Your task to perform on an android device: turn on wifi Image 0: 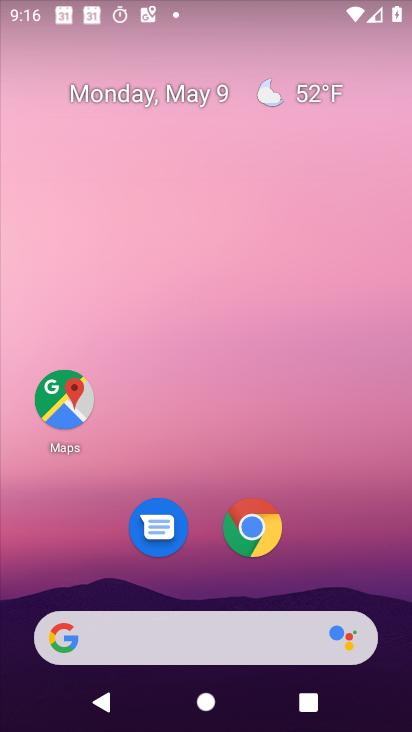
Step 0: drag from (330, 565) to (315, 206)
Your task to perform on an android device: turn on wifi Image 1: 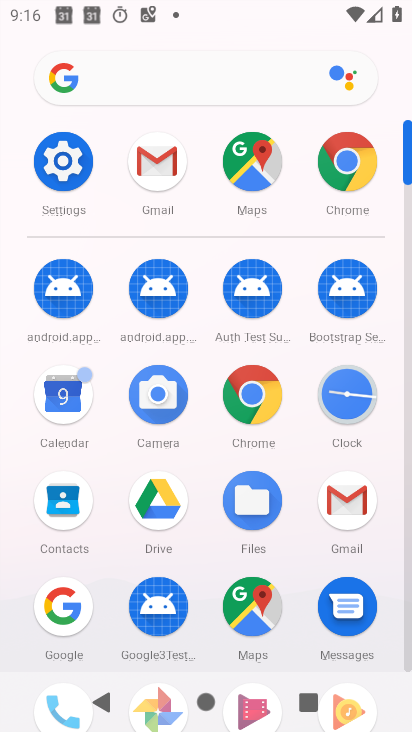
Step 1: click (44, 168)
Your task to perform on an android device: turn on wifi Image 2: 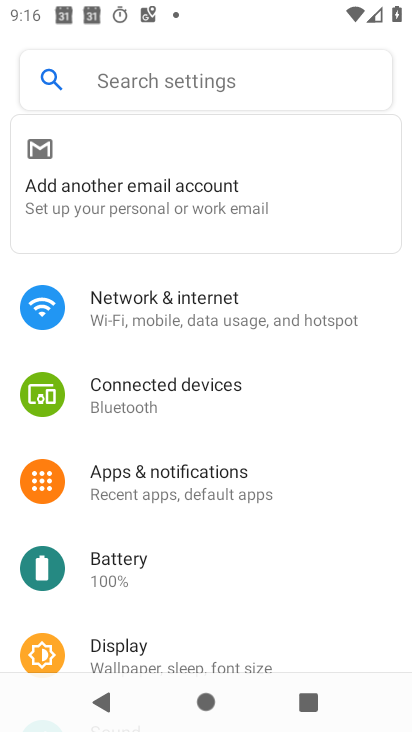
Step 2: click (149, 301)
Your task to perform on an android device: turn on wifi Image 3: 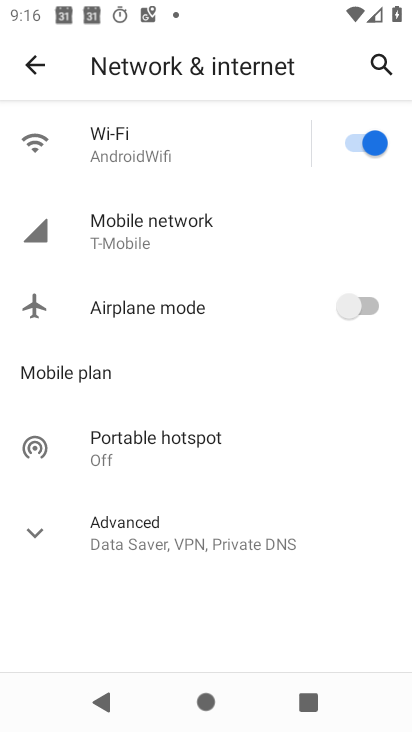
Step 3: task complete